Your task to perform on an android device: Search for seafood restaurants on Google Maps Image 0: 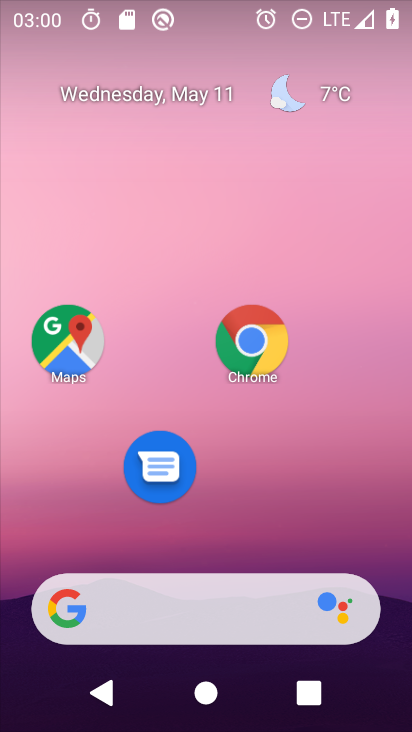
Step 0: drag from (185, 606) to (285, 212)
Your task to perform on an android device: Search for seafood restaurants on Google Maps Image 1: 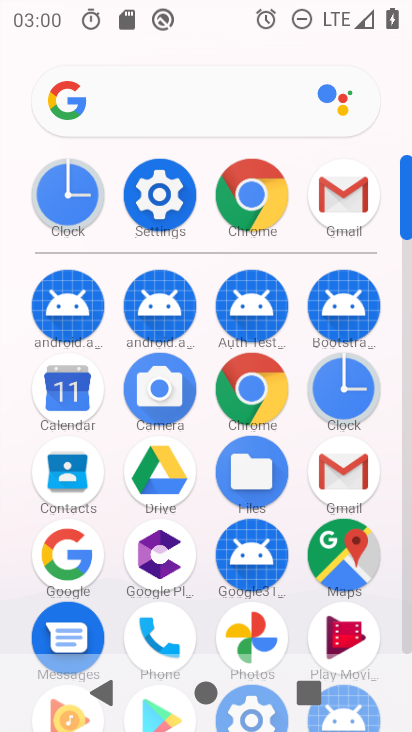
Step 1: click (339, 553)
Your task to perform on an android device: Search for seafood restaurants on Google Maps Image 2: 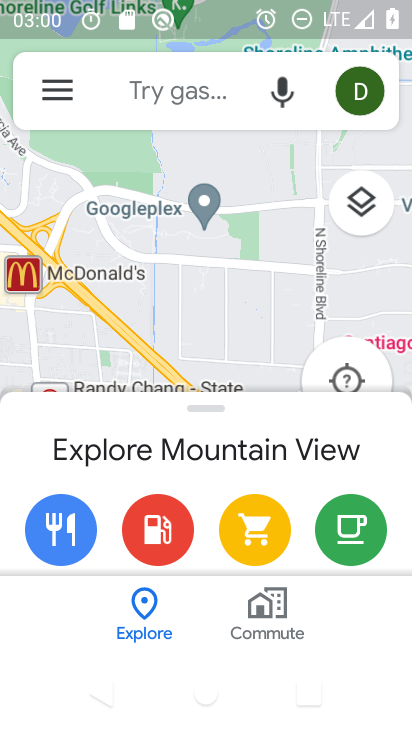
Step 2: click (162, 94)
Your task to perform on an android device: Search for seafood restaurants on Google Maps Image 3: 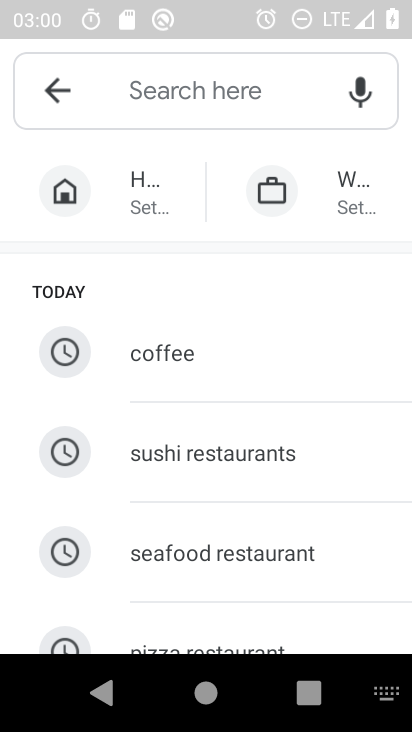
Step 3: click (195, 553)
Your task to perform on an android device: Search for seafood restaurants on Google Maps Image 4: 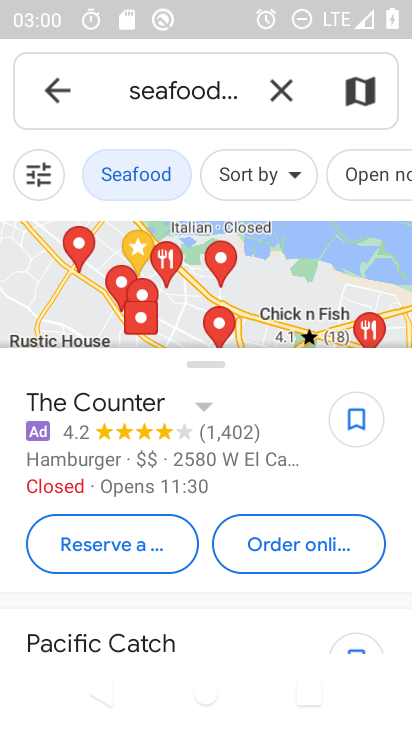
Step 4: task complete